Your task to perform on an android device: change notification settings in the gmail app Image 0: 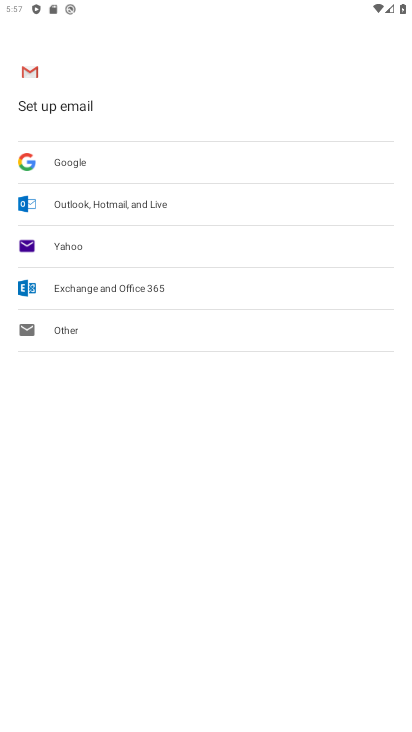
Step 0: press home button
Your task to perform on an android device: change notification settings in the gmail app Image 1: 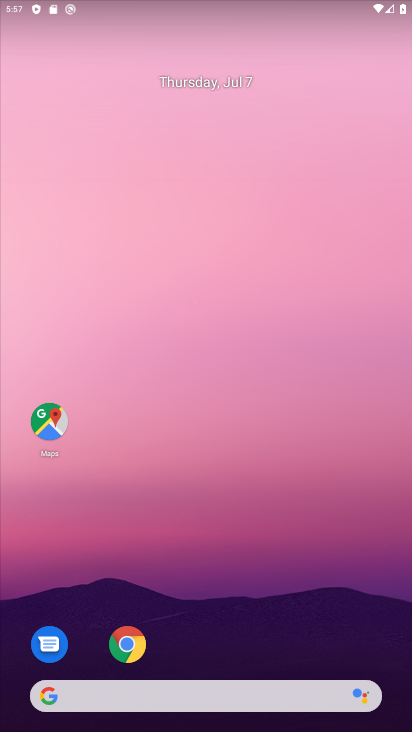
Step 1: drag from (298, 653) to (194, 33)
Your task to perform on an android device: change notification settings in the gmail app Image 2: 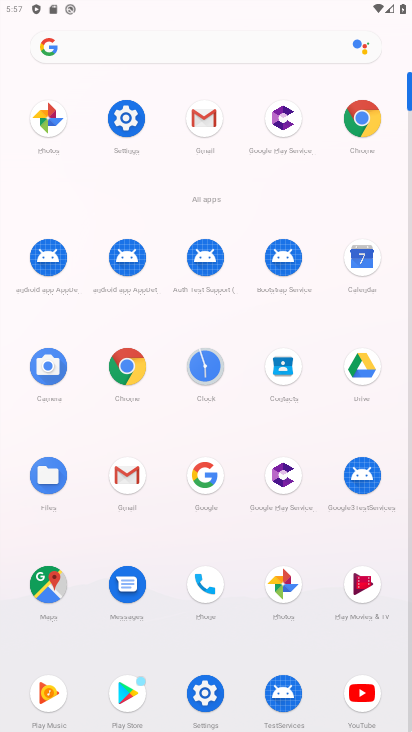
Step 2: click (211, 122)
Your task to perform on an android device: change notification settings in the gmail app Image 3: 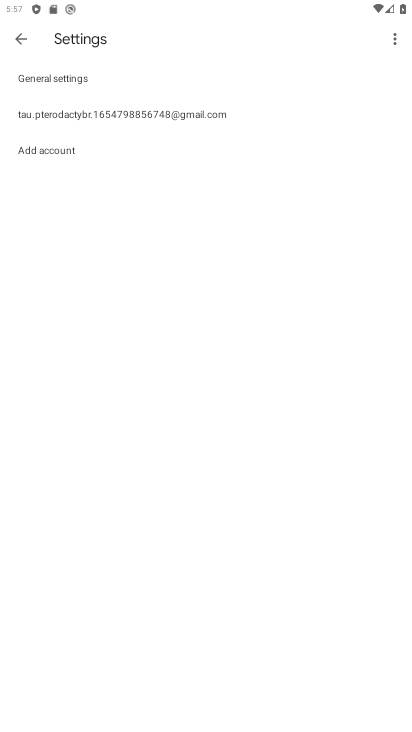
Step 3: press back button
Your task to perform on an android device: change notification settings in the gmail app Image 4: 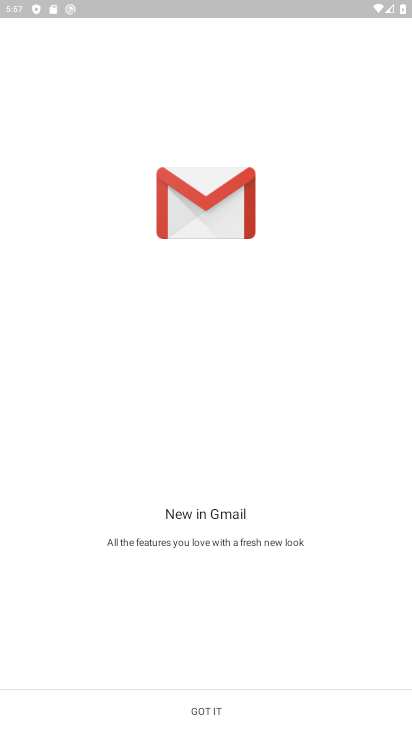
Step 4: press home button
Your task to perform on an android device: change notification settings in the gmail app Image 5: 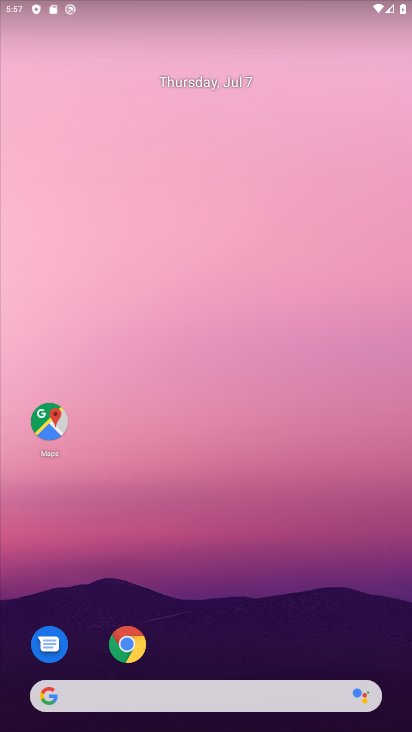
Step 5: drag from (321, 565) to (201, 3)
Your task to perform on an android device: change notification settings in the gmail app Image 6: 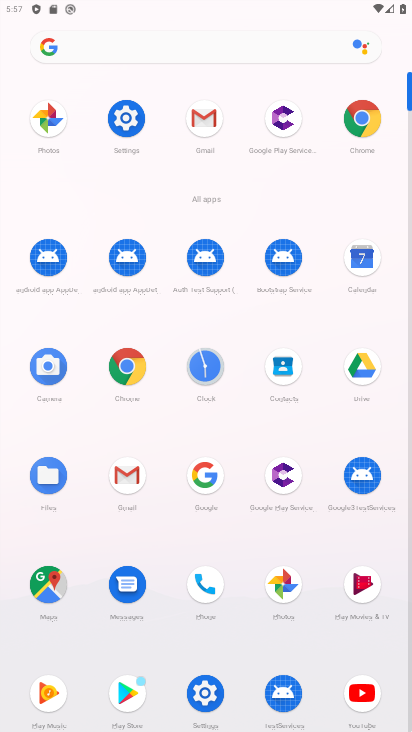
Step 6: click (201, 127)
Your task to perform on an android device: change notification settings in the gmail app Image 7: 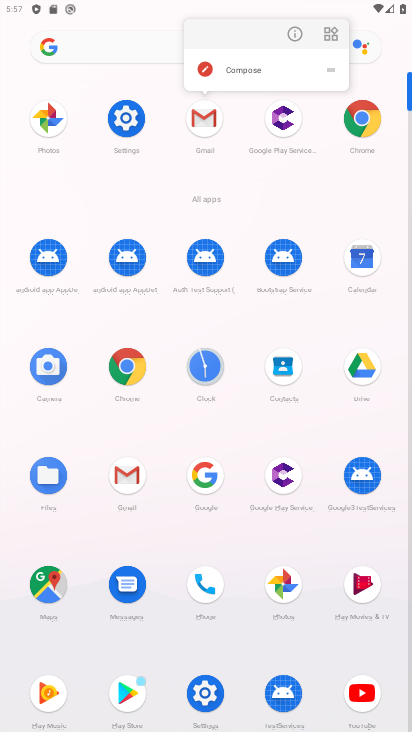
Step 7: click (300, 35)
Your task to perform on an android device: change notification settings in the gmail app Image 8: 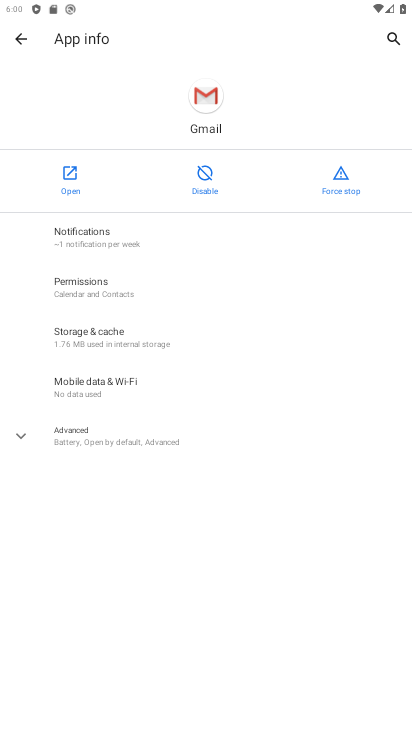
Step 8: click (90, 237)
Your task to perform on an android device: change notification settings in the gmail app Image 9: 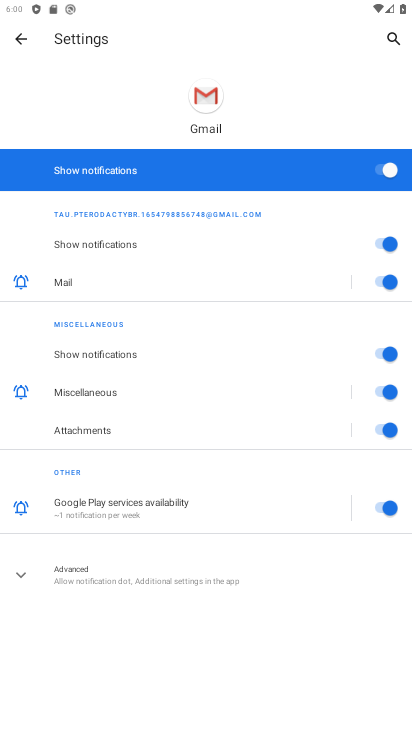
Step 9: click (333, 160)
Your task to perform on an android device: change notification settings in the gmail app Image 10: 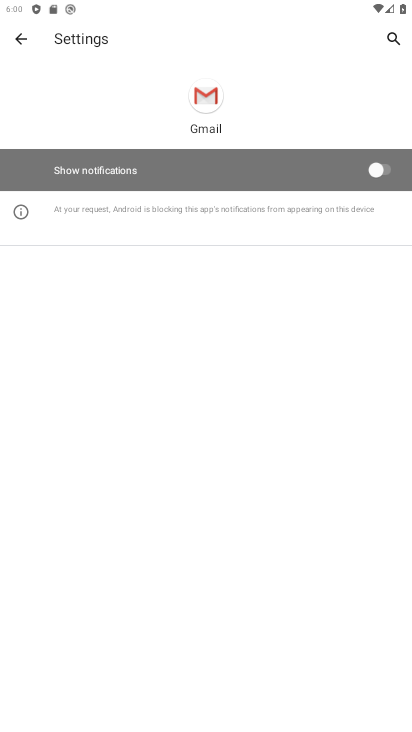
Step 10: task complete